Your task to perform on an android device: Open battery settings Image 0: 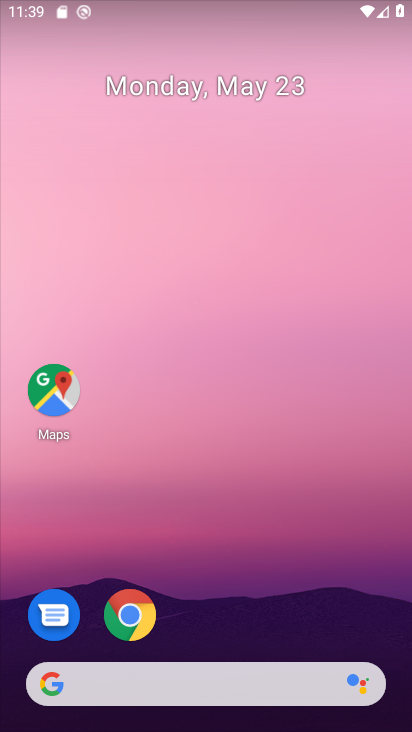
Step 0: drag from (216, 469) to (224, 95)
Your task to perform on an android device: Open battery settings Image 1: 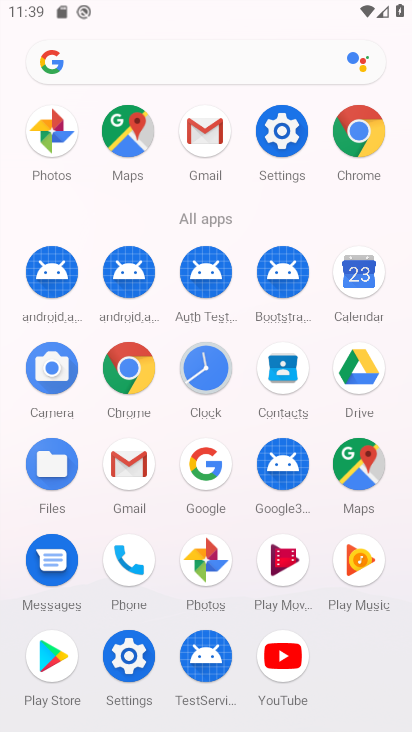
Step 1: click (282, 129)
Your task to perform on an android device: Open battery settings Image 2: 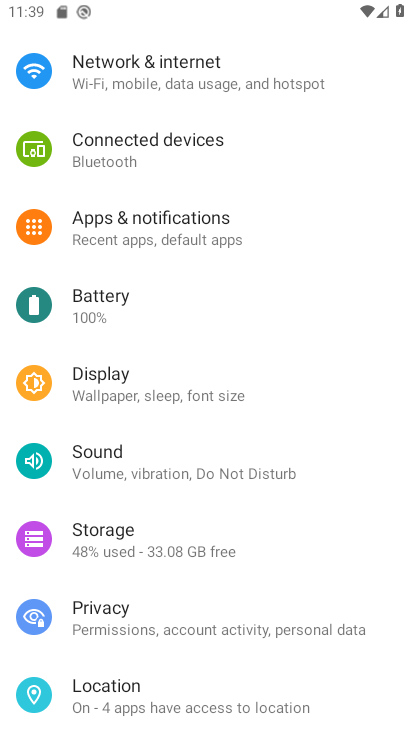
Step 2: click (114, 312)
Your task to perform on an android device: Open battery settings Image 3: 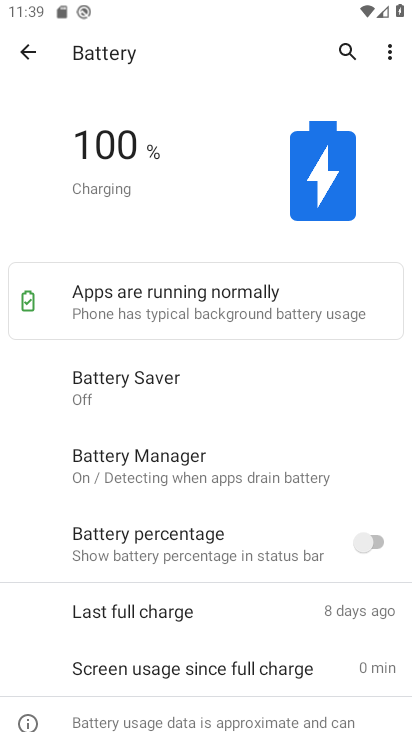
Step 3: task complete